Your task to perform on an android device: Open my contact list Image 0: 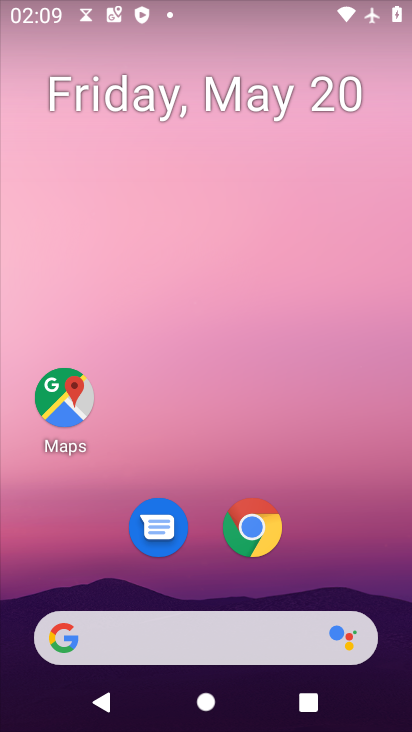
Step 0: press home button
Your task to perform on an android device: Open my contact list Image 1: 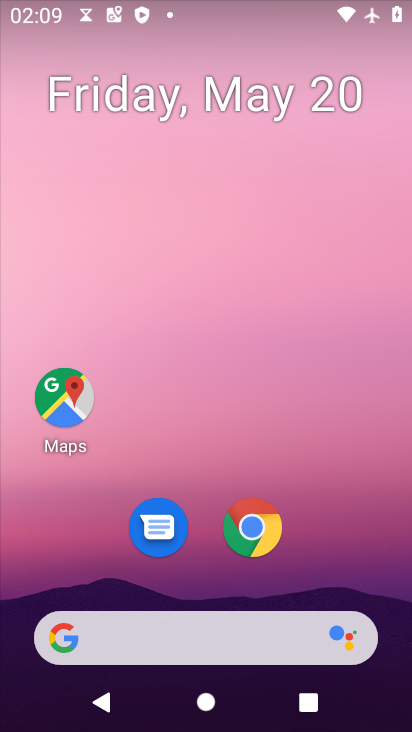
Step 1: drag from (198, 634) to (255, 256)
Your task to perform on an android device: Open my contact list Image 2: 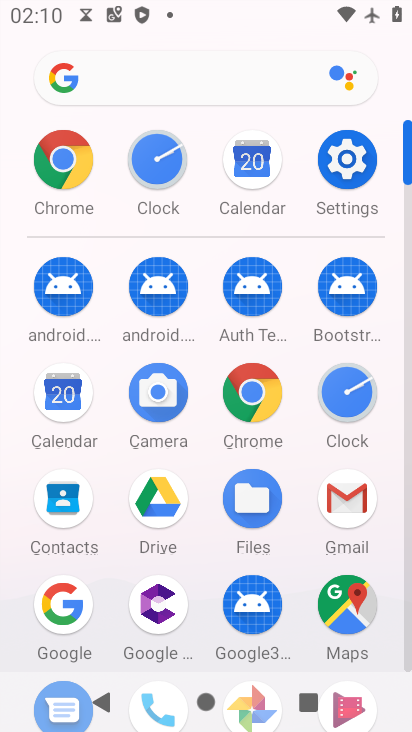
Step 2: click (70, 500)
Your task to perform on an android device: Open my contact list Image 3: 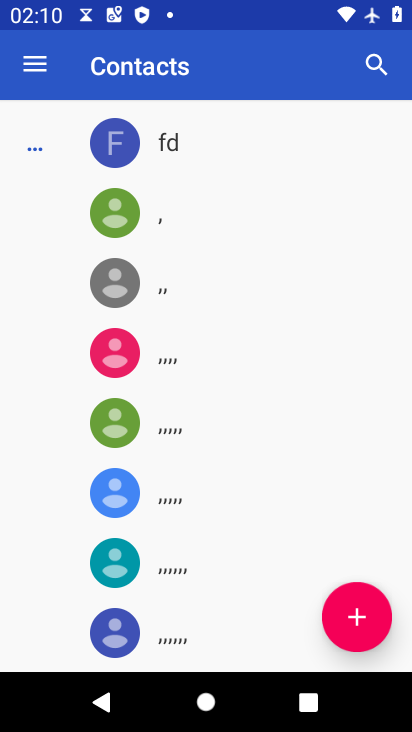
Step 3: task complete